Your task to perform on an android device: change keyboard looks Image 0: 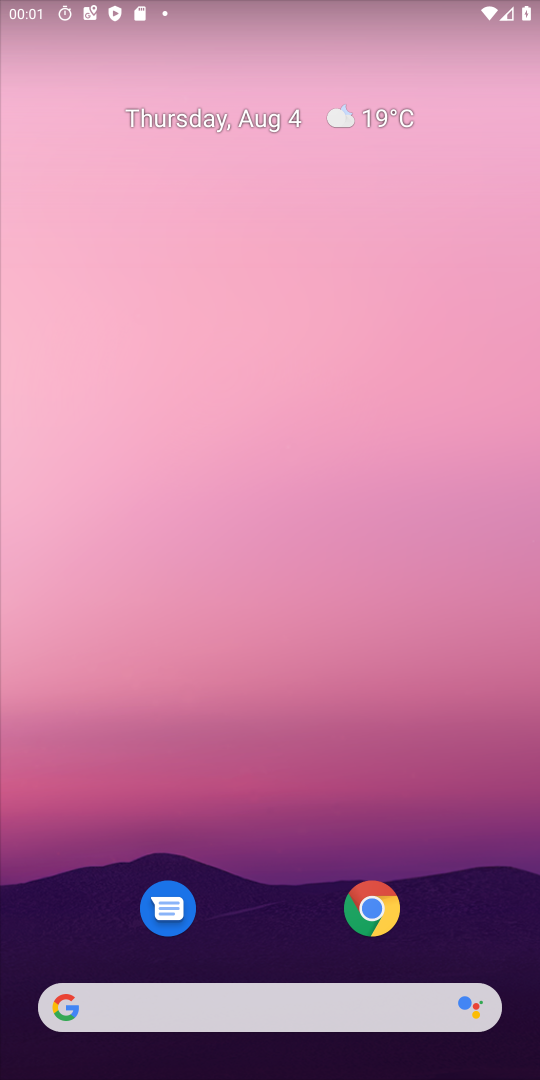
Step 0: drag from (323, 1024) to (105, 148)
Your task to perform on an android device: change keyboard looks Image 1: 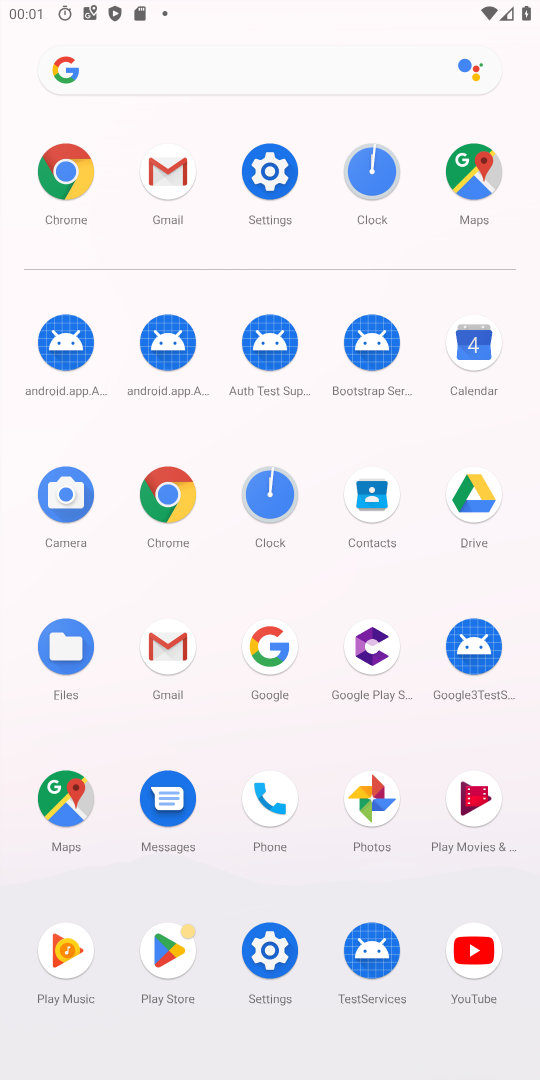
Step 1: click (289, 201)
Your task to perform on an android device: change keyboard looks Image 2: 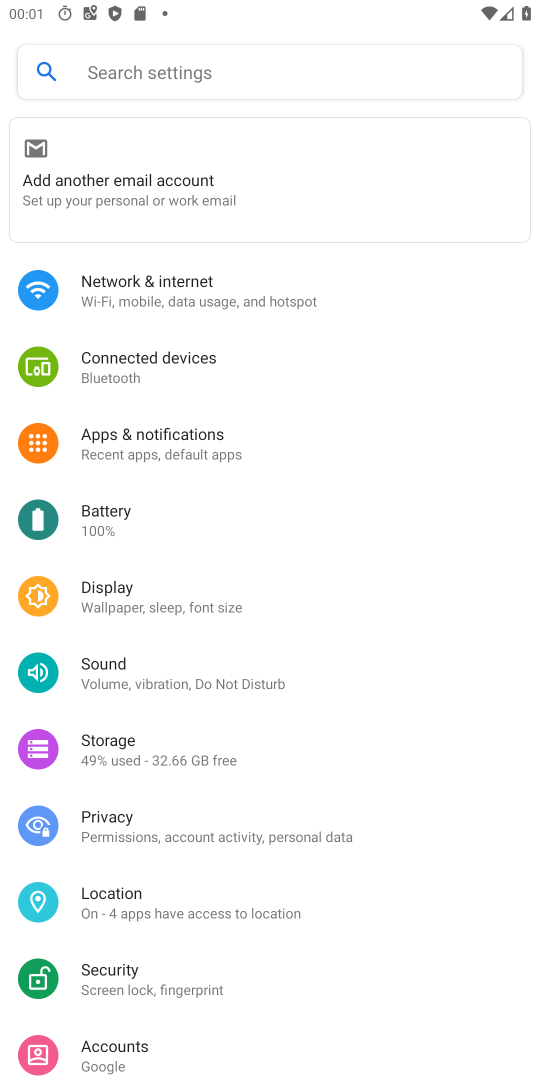
Step 2: click (184, 74)
Your task to perform on an android device: change keyboard looks Image 3: 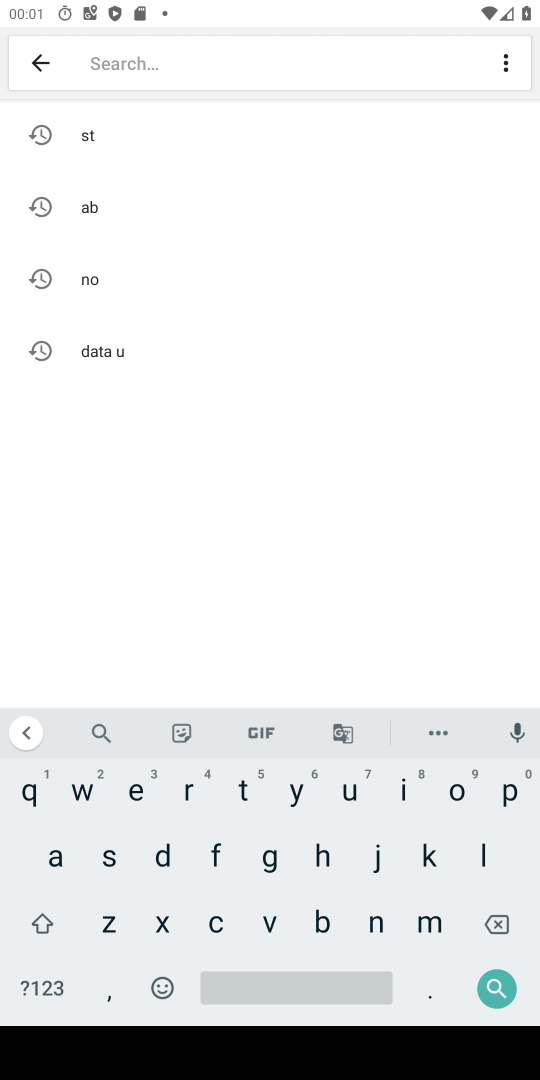
Step 3: click (418, 847)
Your task to perform on an android device: change keyboard looks Image 4: 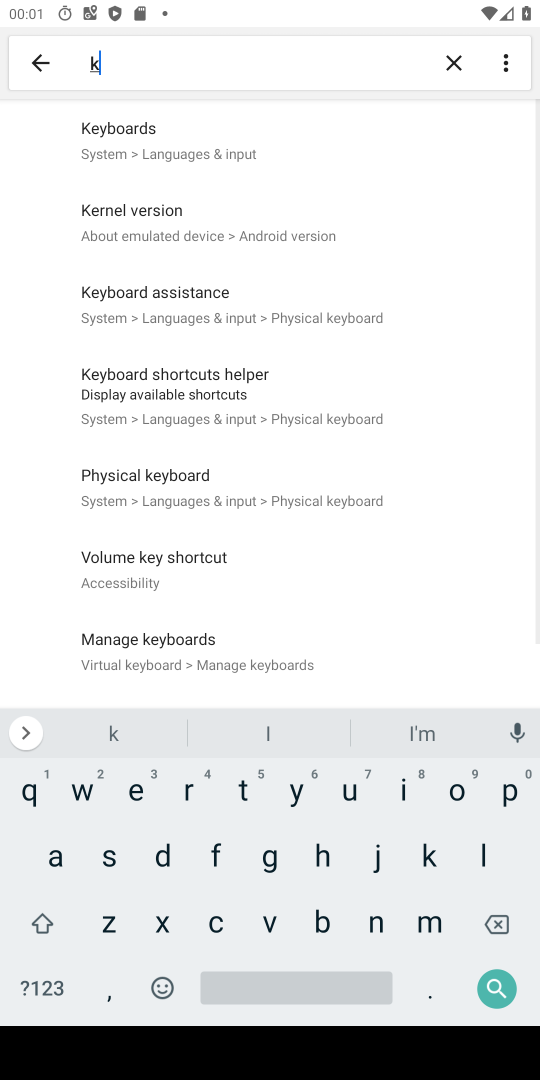
Step 4: click (115, 114)
Your task to perform on an android device: change keyboard looks Image 5: 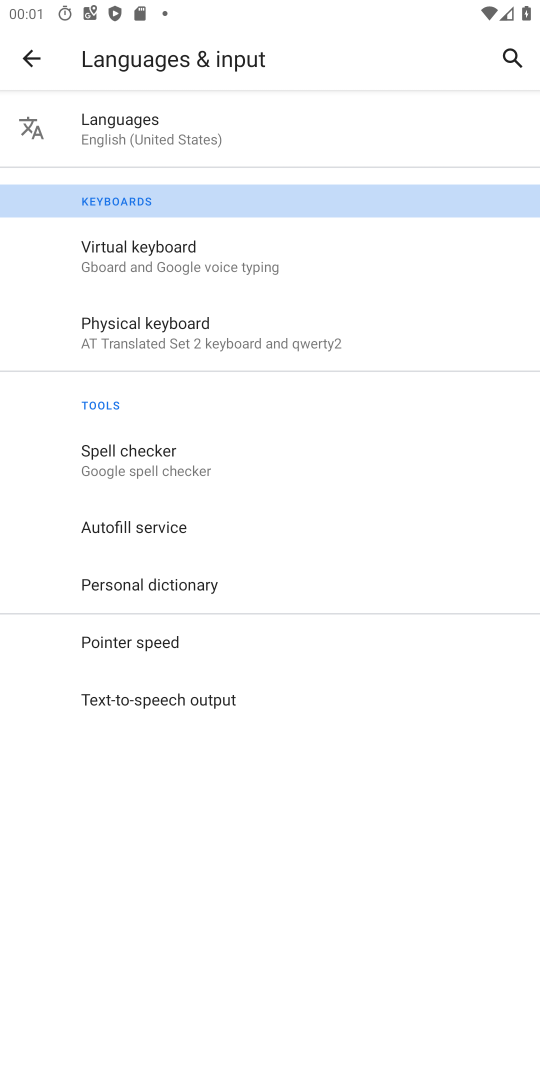
Step 5: click (173, 247)
Your task to perform on an android device: change keyboard looks Image 6: 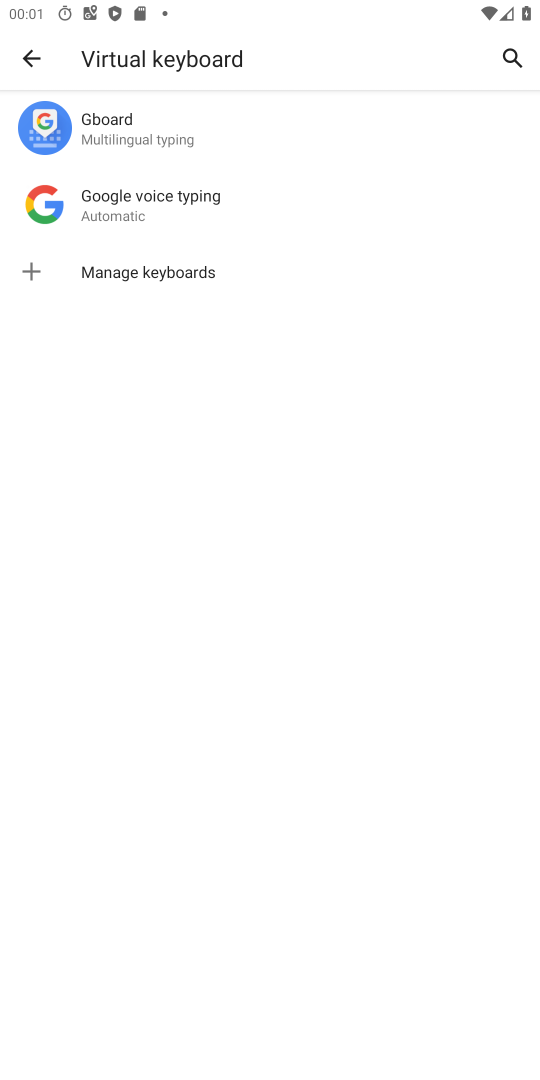
Step 6: click (147, 148)
Your task to perform on an android device: change keyboard looks Image 7: 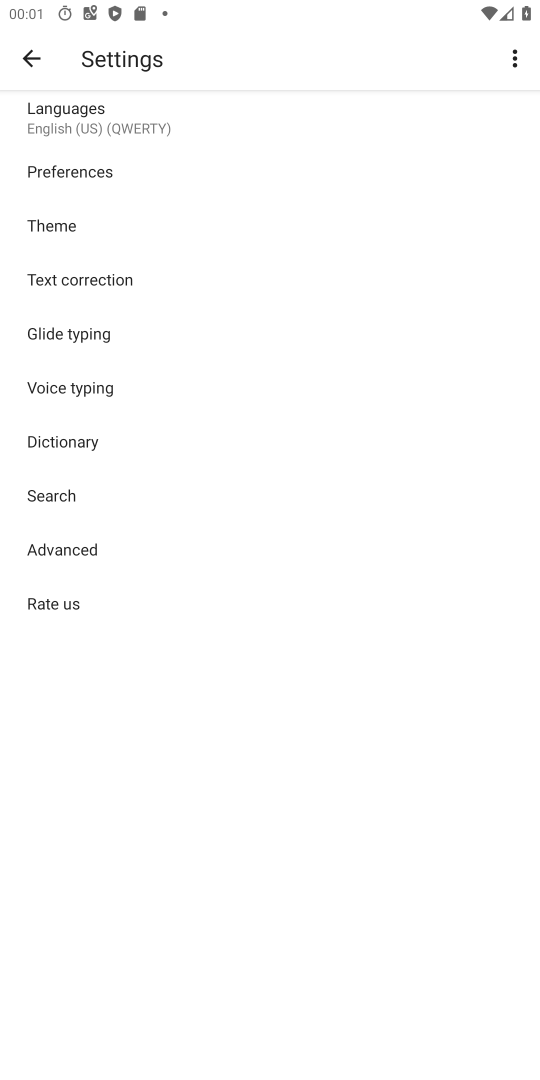
Step 7: click (73, 224)
Your task to perform on an android device: change keyboard looks Image 8: 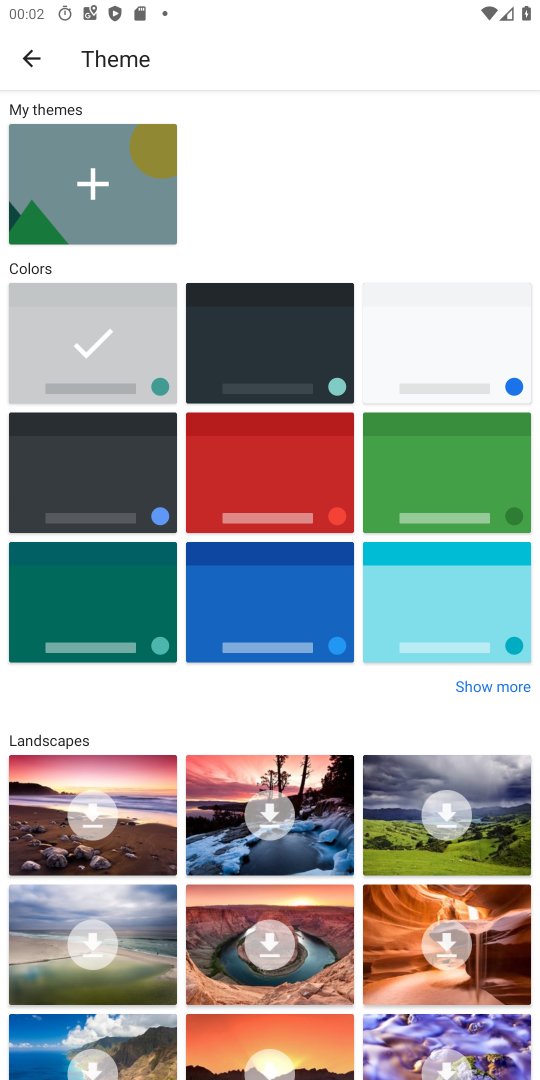
Step 8: click (269, 610)
Your task to perform on an android device: change keyboard looks Image 9: 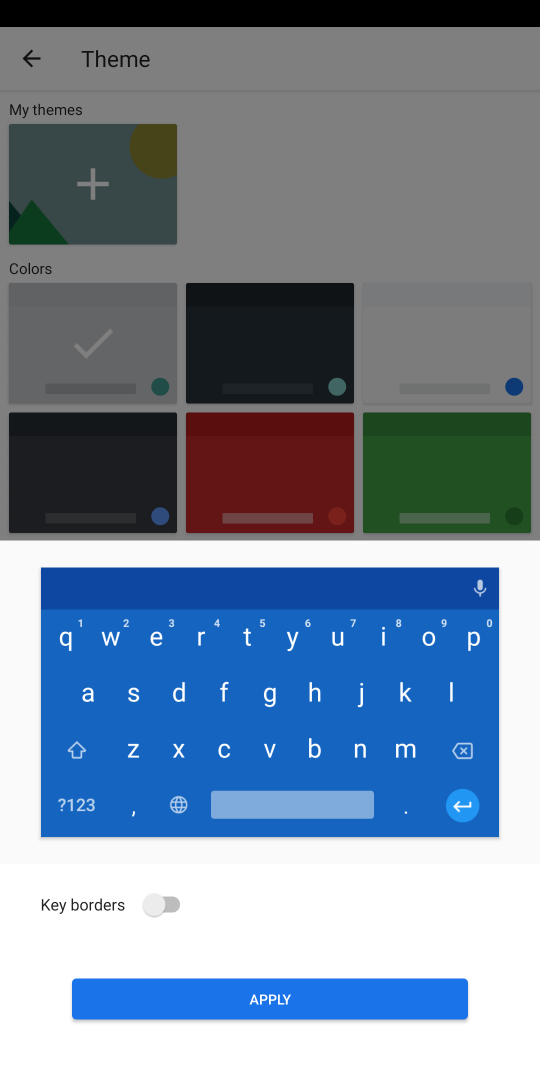
Step 9: click (163, 915)
Your task to perform on an android device: change keyboard looks Image 10: 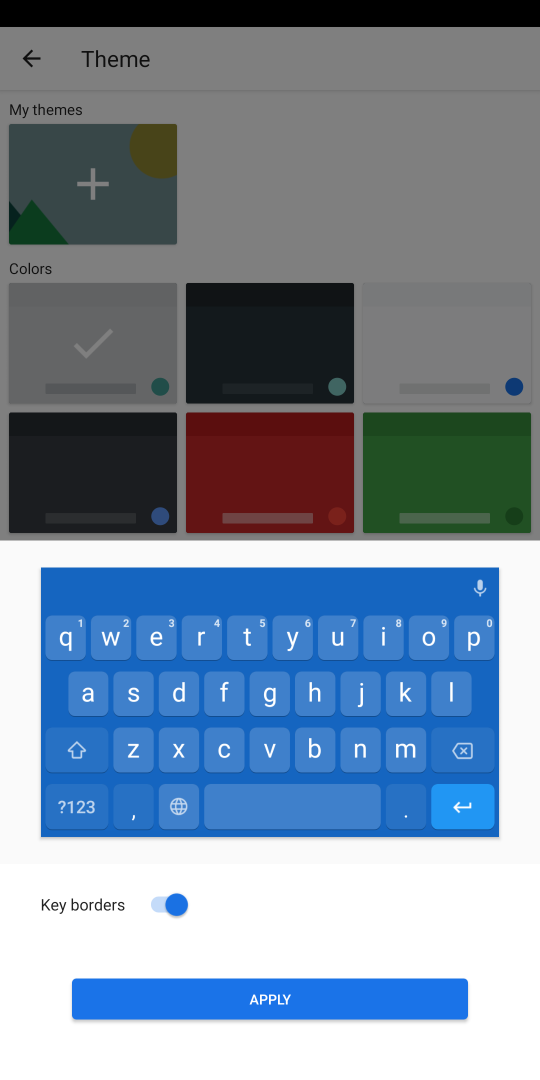
Step 10: click (312, 999)
Your task to perform on an android device: change keyboard looks Image 11: 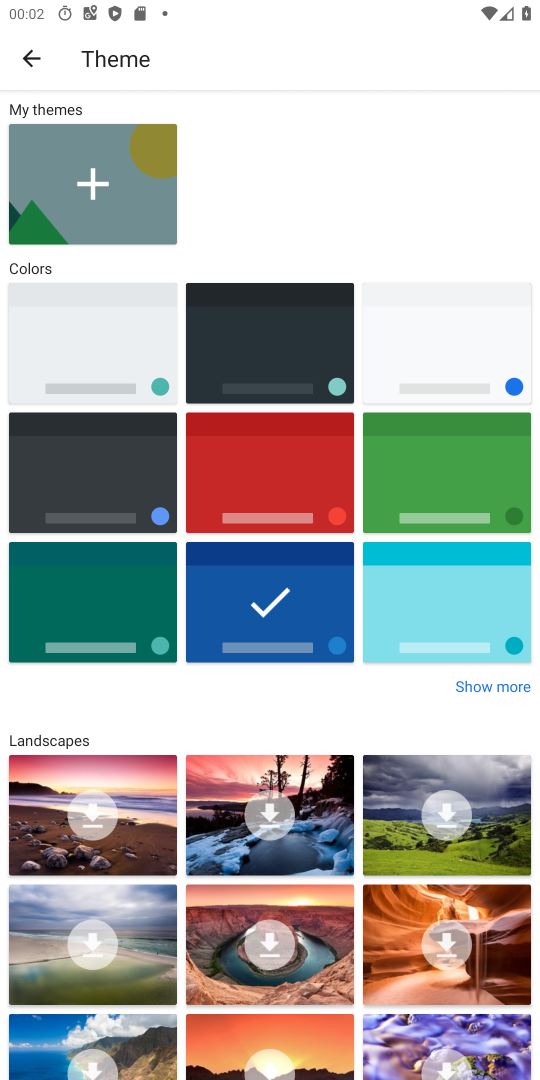
Step 11: task complete